Your task to perform on an android device: see tabs open on other devices in the chrome app Image 0: 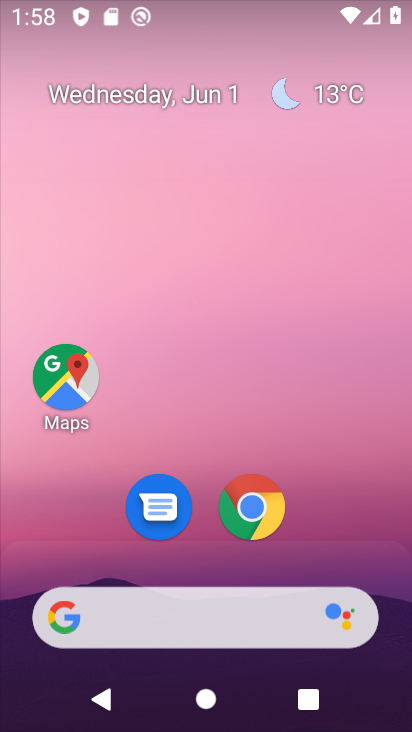
Step 0: click (253, 522)
Your task to perform on an android device: see tabs open on other devices in the chrome app Image 1: 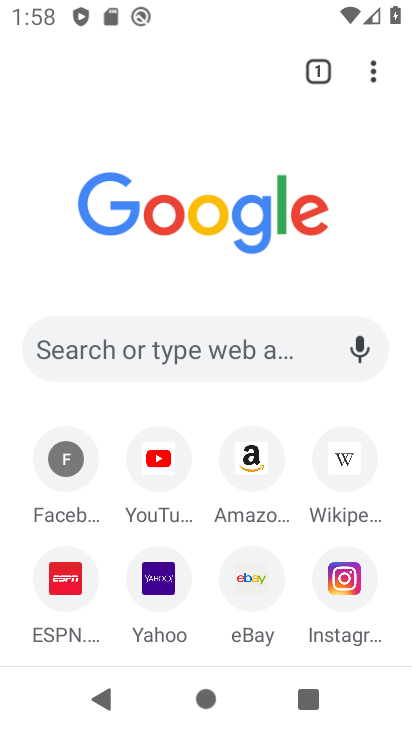
Step 1: click (376, 74)
Your task to perform on an android device: see tabs open on other devices in the chrome app Image 2: 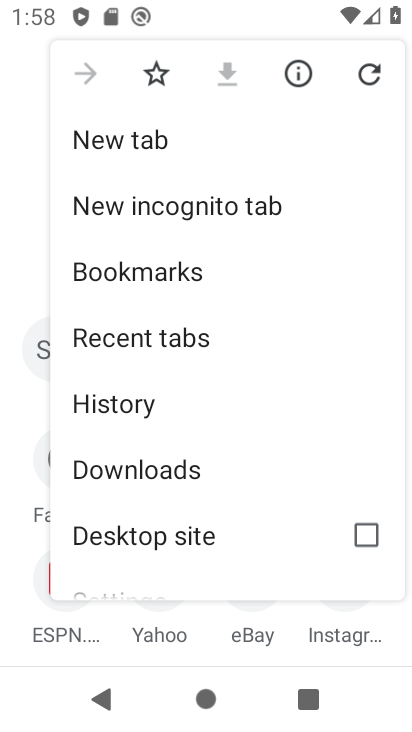
Step 2: click (133, 336)
Your task to perform on an android device: see tabs open on other devices in the chrome app Image 3: 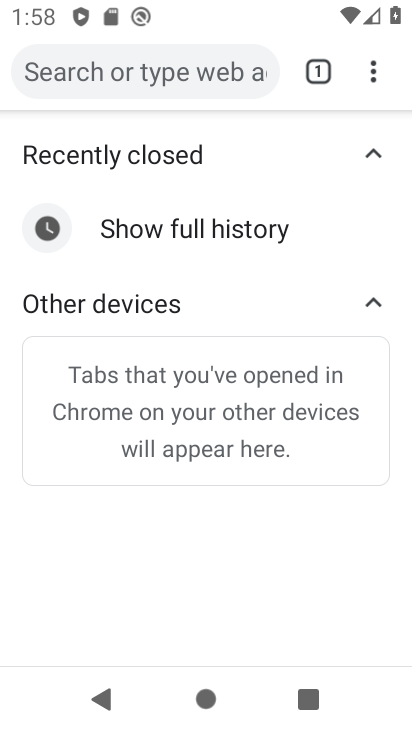
Step 3: task complete